Your task to perform on an android device: toggle location history Image 0: 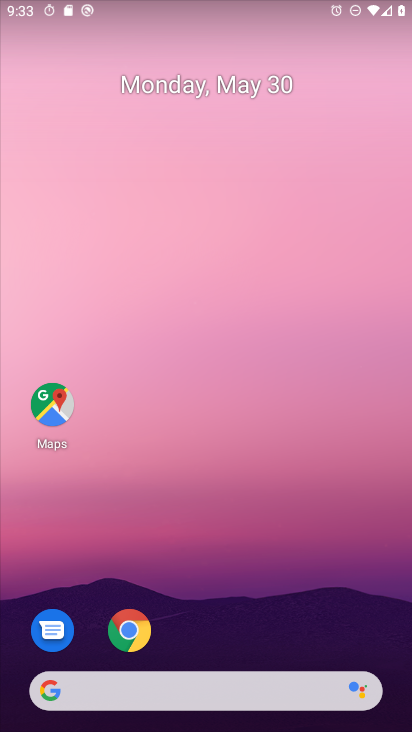
Step 0: drag from (324, 618) to (314, 21)
Your task to perform on an android device: toggle location history Image 1: 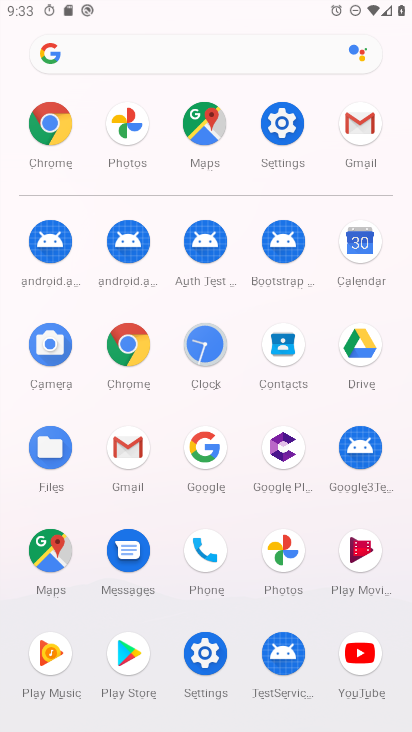
Step 1: click (271, 141)
Your task to perform on an android device: toggle location history Image 2: 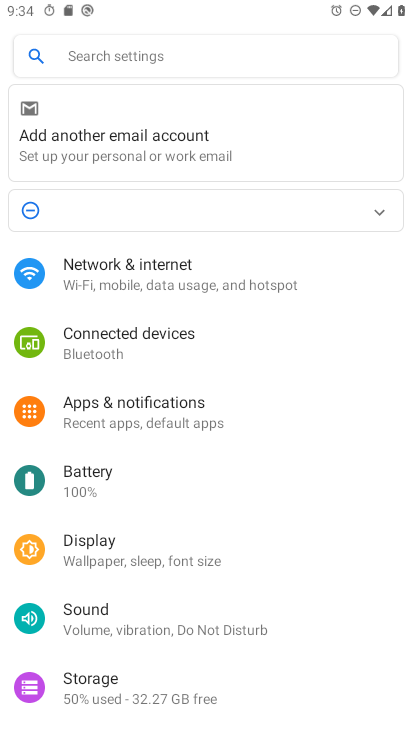
Step 2: drag from (127, 654) to (186, 277)
Your task to perform on an android device: toggle location history Image 3: 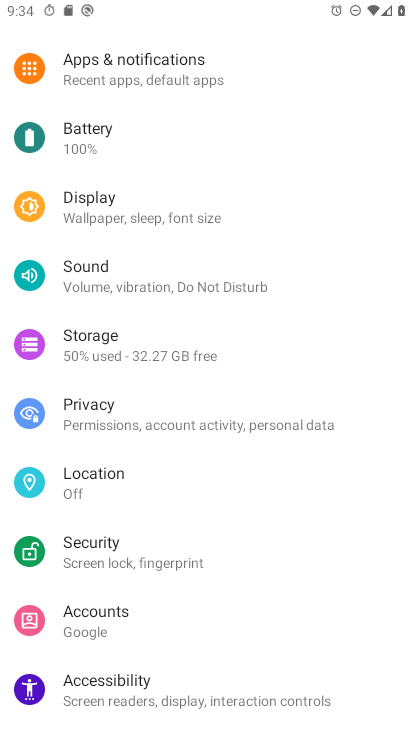
Step 3: click (126, 487)
Your task to perform on an android device: toggle location history Image 4: 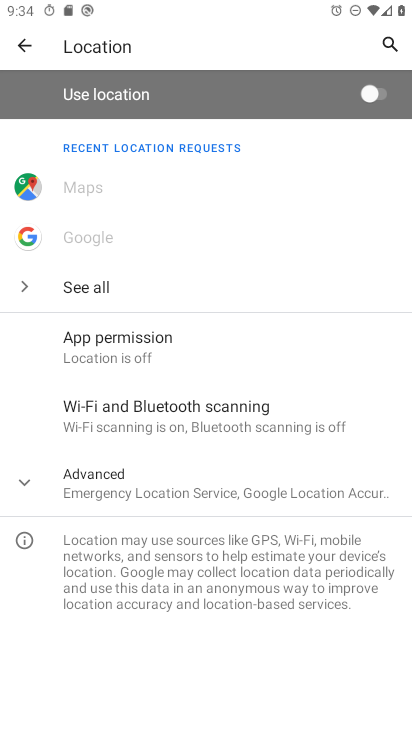
Step 4: click (133, 482)
Your task to perform on an android device: toggle location history Image 5: 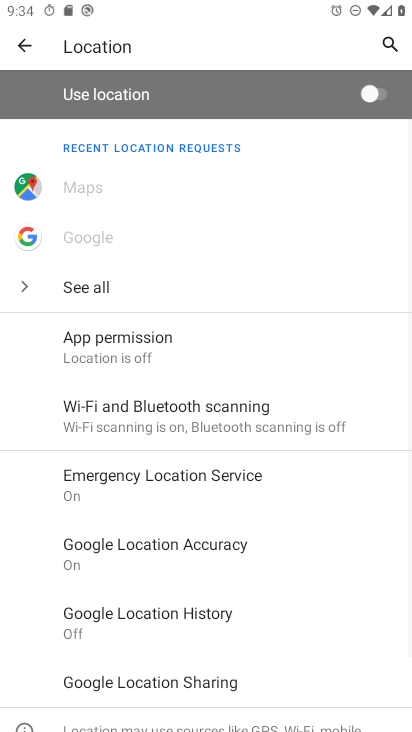
Step 5: click (216, 615)
Your task to perform on an android device: toggle location history Image 6: 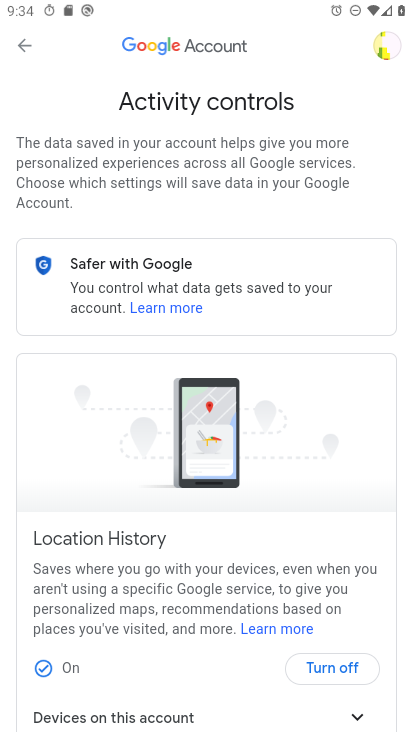
Step 6: click (314, 666)
Your task to perform on an android device: toggle location history Image 7: 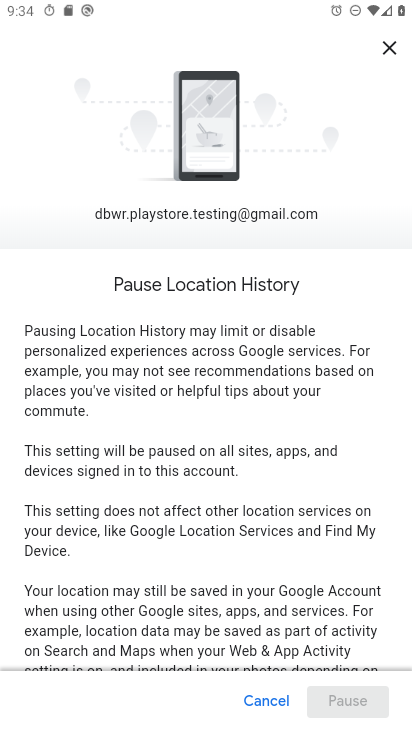
Step 7: task complete